Your task to perform on an android device: Go to privacy settings Image 0: 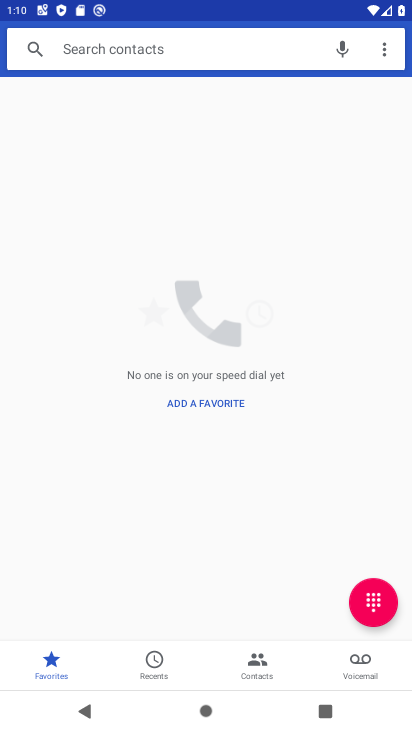
Step 0: press home button
Your task to perform on an android device: Go to privacy settings Image 1: 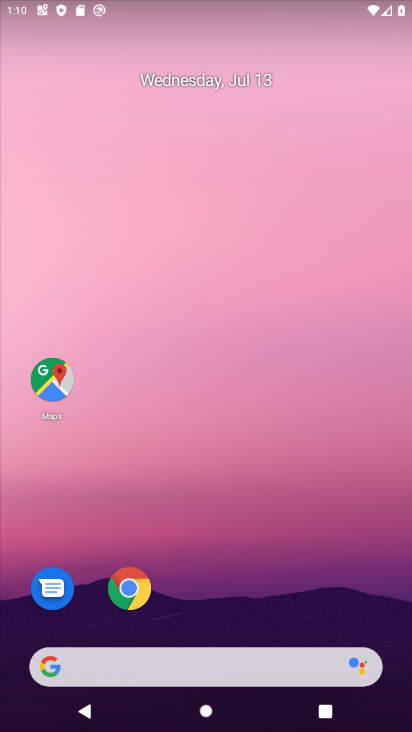
Step 1: drag from (187, 653) to (189, 284)
Your task to perform on an android device: Go to privacy settings Image 2: 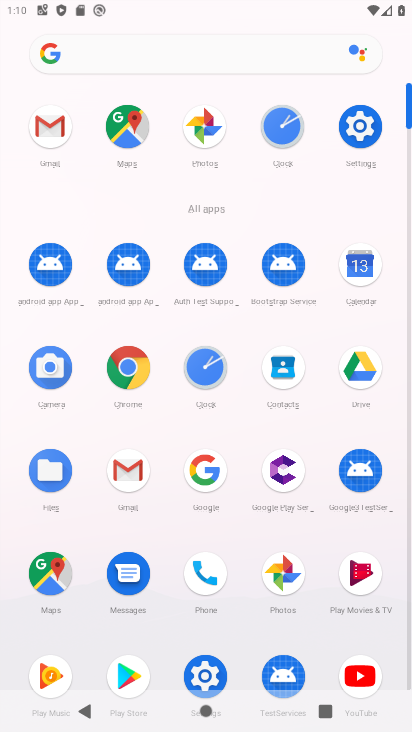
Step 2: click (351, 132)
Your task to perform on an android device: Go to privacy settings Image 3: 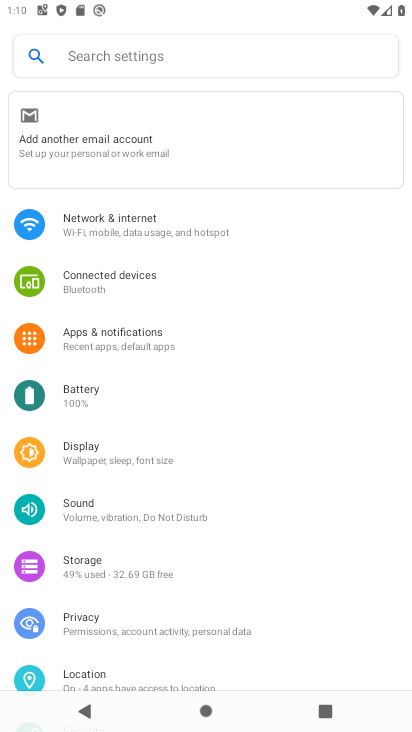
Step 3: click (98, 621)
Your task to perform on an android device: Go to privacy settings Image 4: 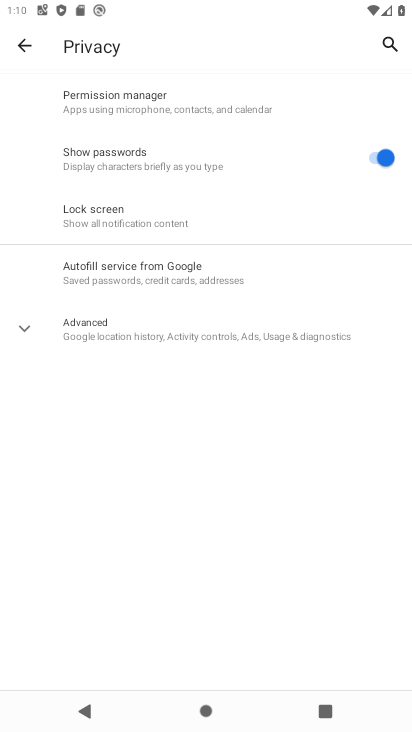
Step 4: click (175, 334)
Your task to perform on an android device: Go to privacy settings Image 5: 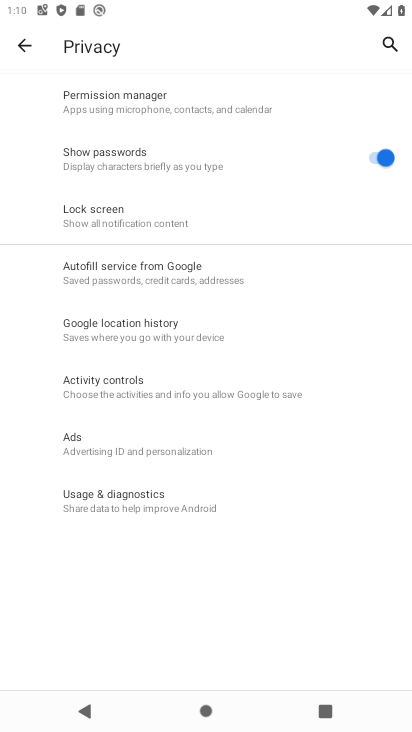
Step 5: task complete